Your task to perform on an android device: What is the news today? Image 0: 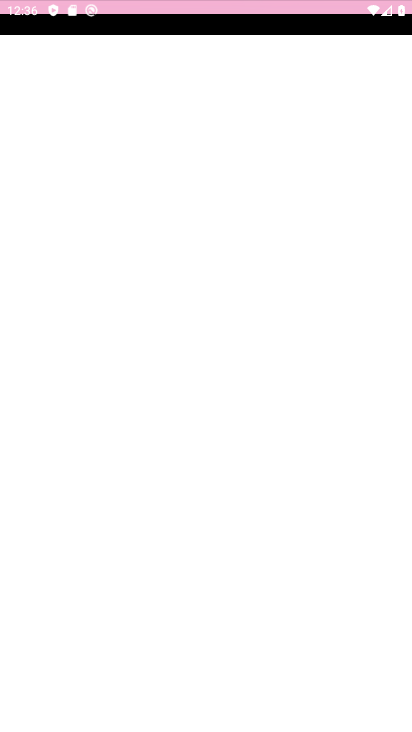
Step 0: press home button
Your task to perform on an android device: What is the news today? Image 1: 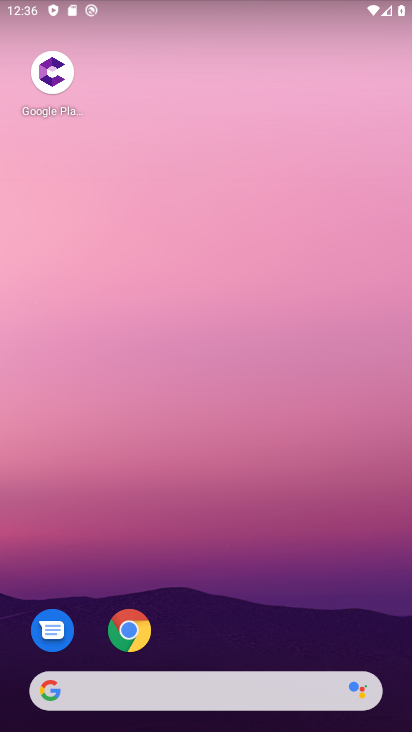
Step 1: click (53, 685)
Your task to perform on an android device: What is the news today? Image 2: 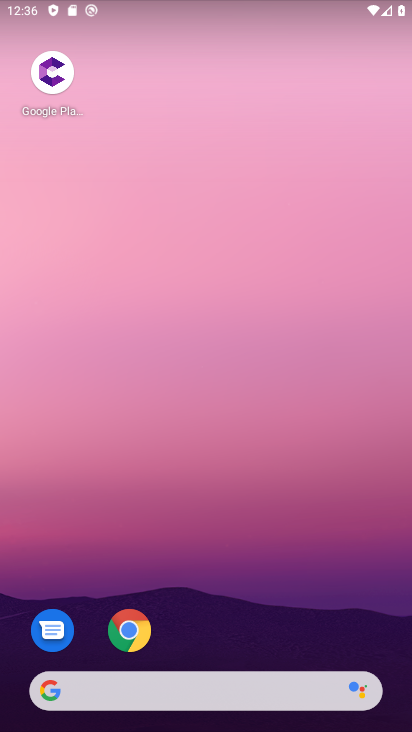
Step 2: type "news today?"
Your task to perform on an android device: What is the news today? Image 3: 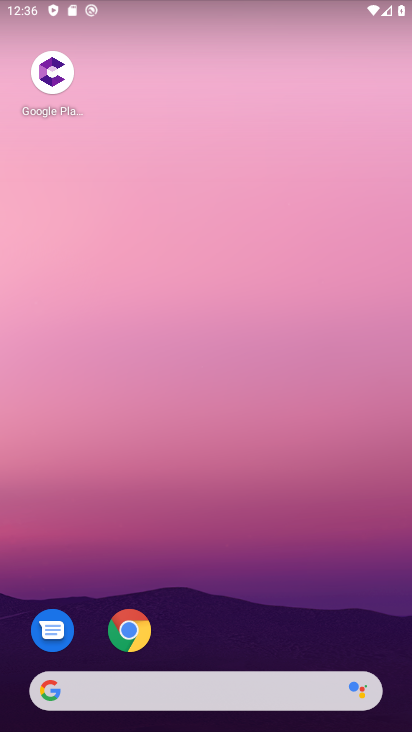
Step 3: click (54, 687)
Your task to perform on an android device: What is the news today? Image 4: 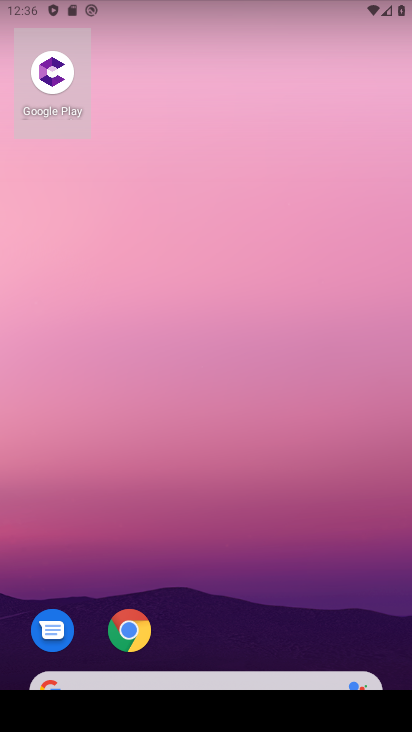
Step 4: click (378, 49)
Your task to perform on an android device: What is the news today? Image 5: 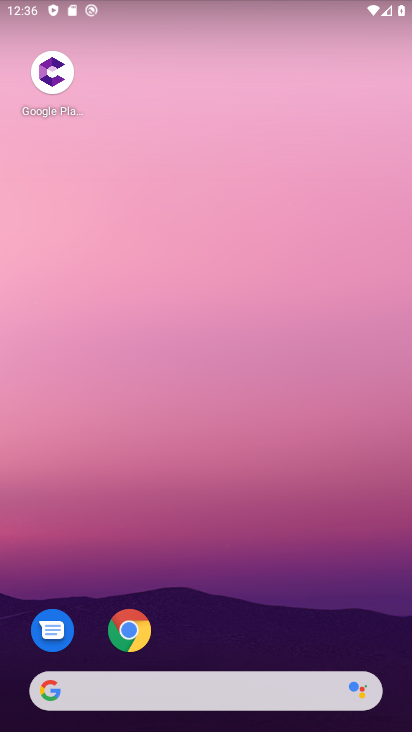
Step 5: click (46, 692)
Your task to perform on an android device: What is the news today? Image 6: 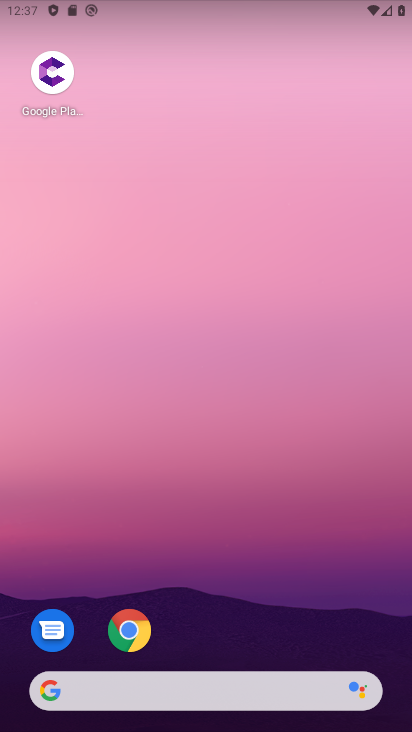
Step 6: click (49, 695)
Your task to perform on an android device: What is the news today? Image 7: 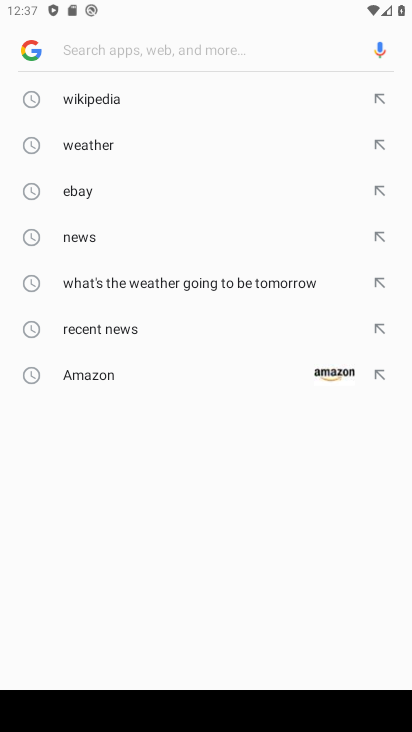
Step 7: type "news today?"
Your task to perform on an android device: What is the news today? Image 8: 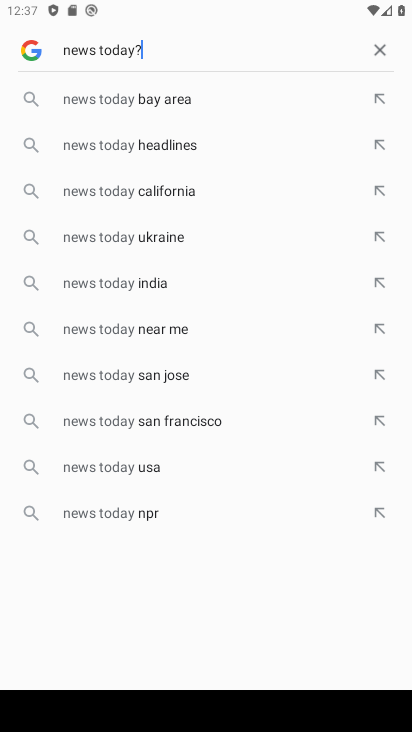
Step 8: press enter
Your task to perform on an android device: What is the news today? Image 9: 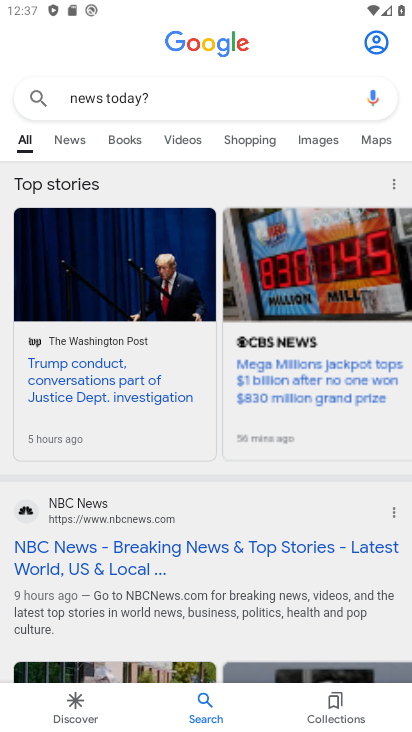
Step 9: task complete